Your task to perform on an android device: Open calendar and show me the fourth week of next month Image 0: 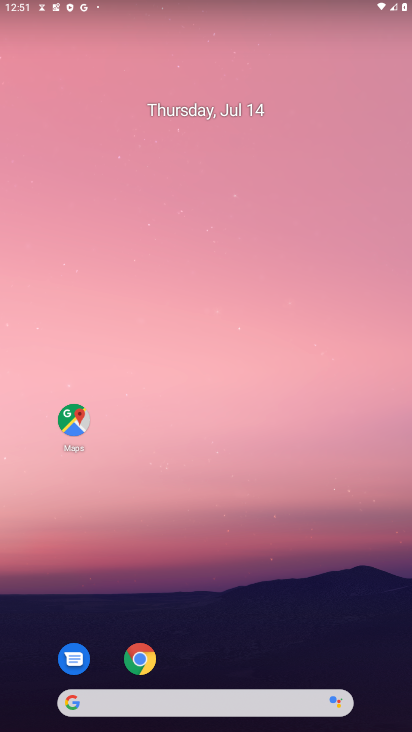
Step 0: click (133, 689)
Your task to perform on an android device: Open calendar and show me the fourth week of next month Image 1: 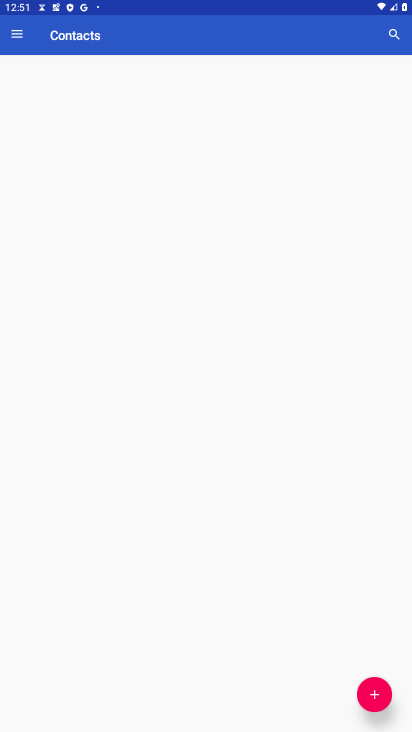
Step 1: click (133, 697)
Your task to perform on an android device: Open calendar and show me the fourth week of next month Image 2: 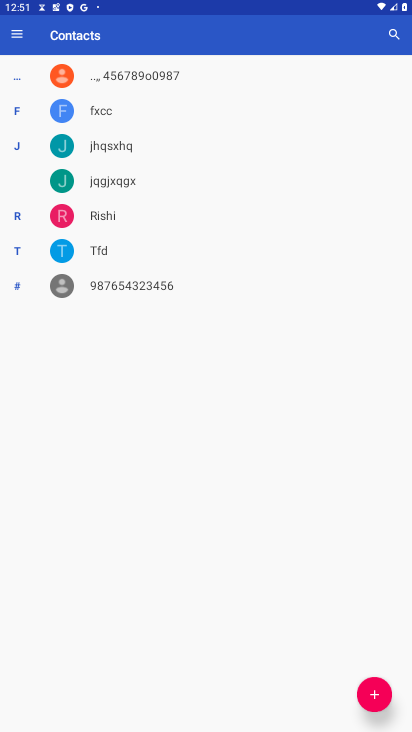
Step 2: press home button
Your task to perform on an android device: Open calendar and show me the fourth week of next month Image 3: 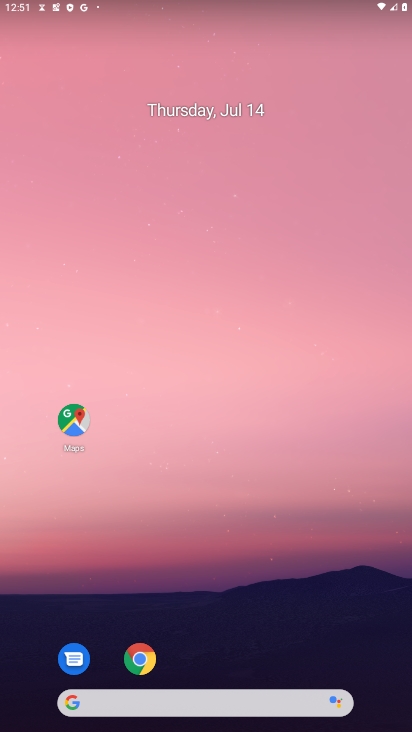
Step 3: drag from (35, 696) to (261, 179)
Your task to perform on an android device: Open calendar and show me the fourth week of next month Image 4: 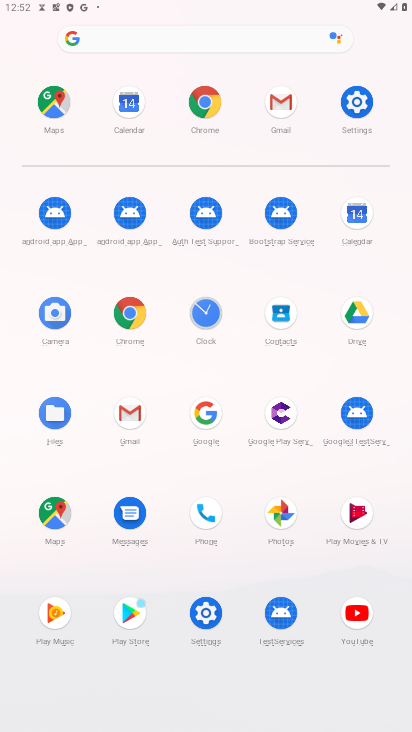
Step 4: click (355, 223)
Your task to perform on an android device: Open calendar and show me the fourth week of next month Image 5: 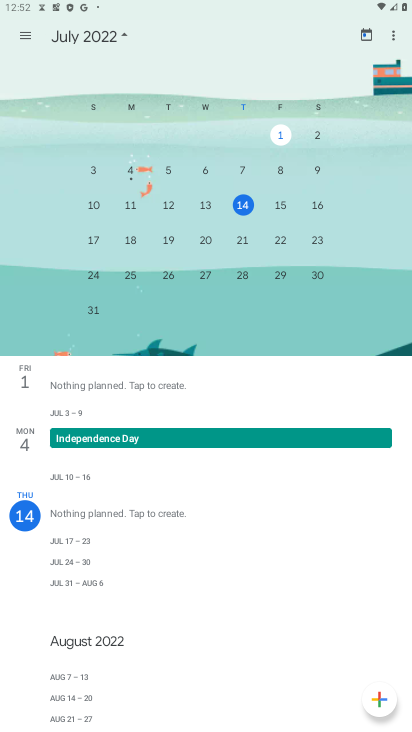
Step 5: drag from (333, 213) to (17, 131)
Your task to perform on an android device: Open calendar and show me the fourth week of next month Image 6: 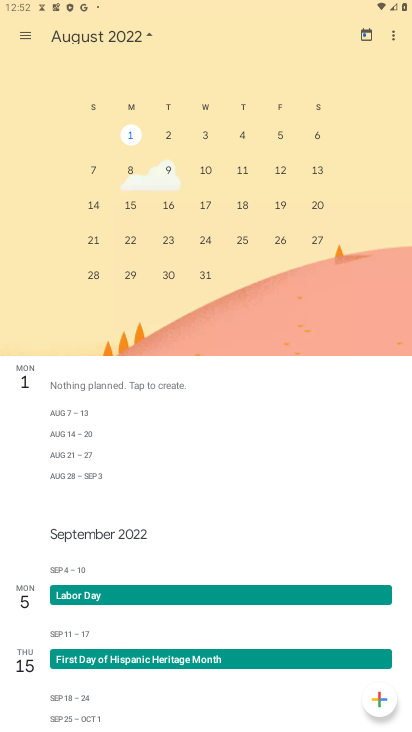
Step 6: click (125, 239)
Your task to perform on an android device: Open calendar and show me the fourth week of next month Image 7: 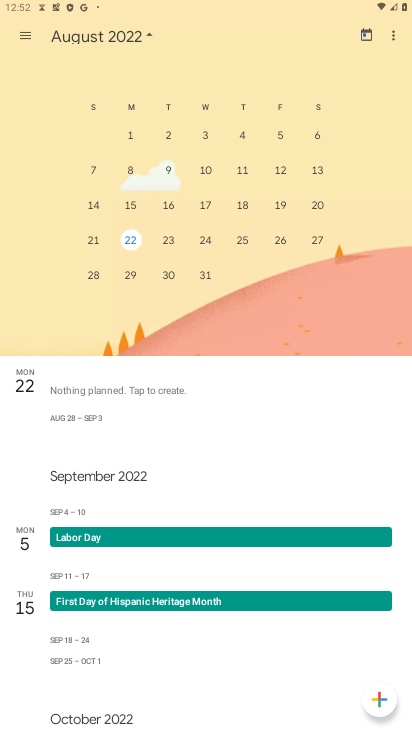
Step 7: task complete